Your task to perform on an android device: Turn off the flashlight Image 0: 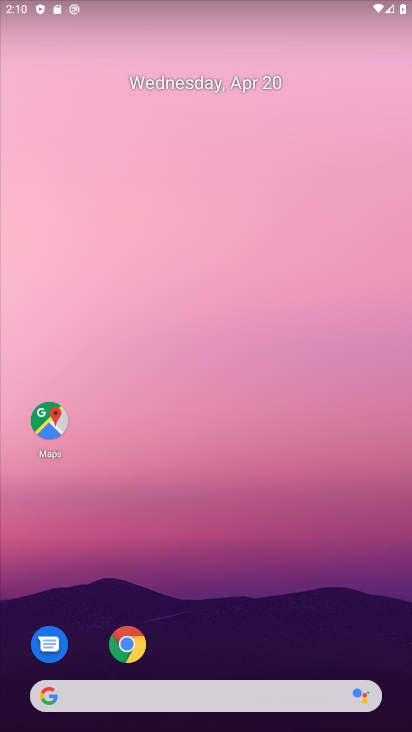
Step 0: drag from (213, 37) to (174, 451)
Your task to perform on an android device: Turn off the flashlight Image 1: 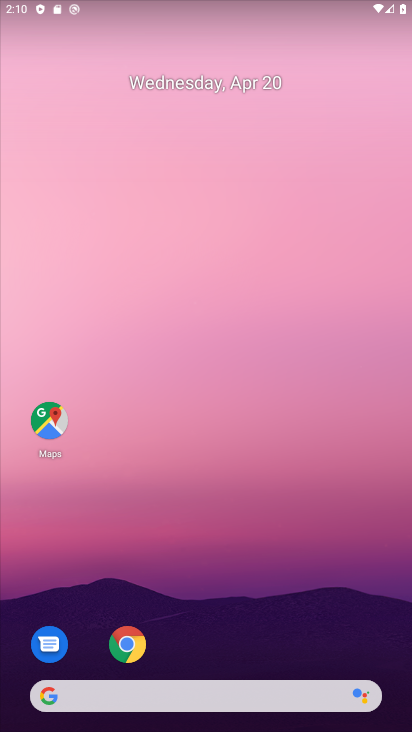
Step 1: drag from (228, 14) to (276, 482)
Your task to perform on an android device: Turn off the flashlight Image 2: 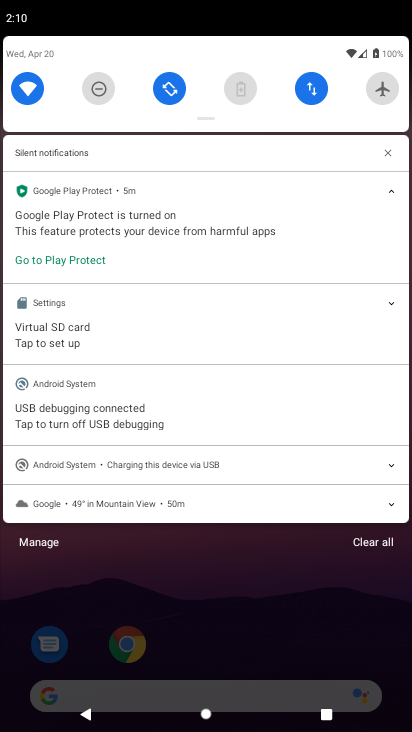
Step 2: drag from (204, 109) to (173, 412)
Your task to perform on an android device: Turn off the flashlight Image 3: 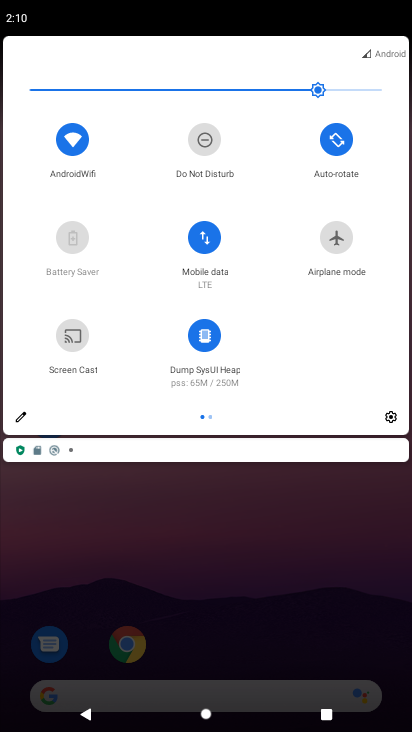
Step 3: click (15, 412)
Your task to perform on an android device: Turn off the flashlight Image 4: 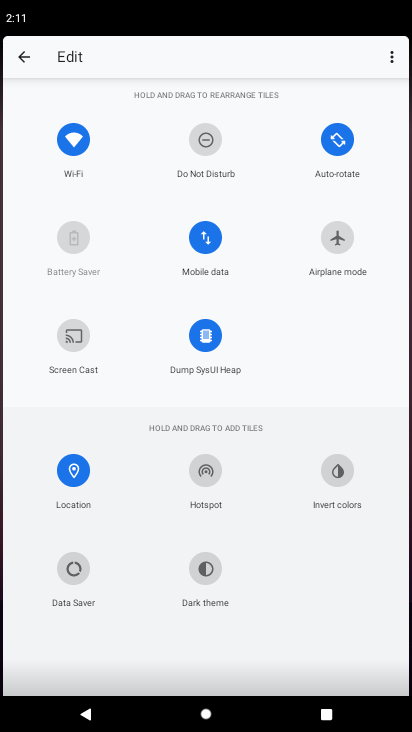
Step 4: task complete